Your task to perform on an android device: set the timer Image 0: 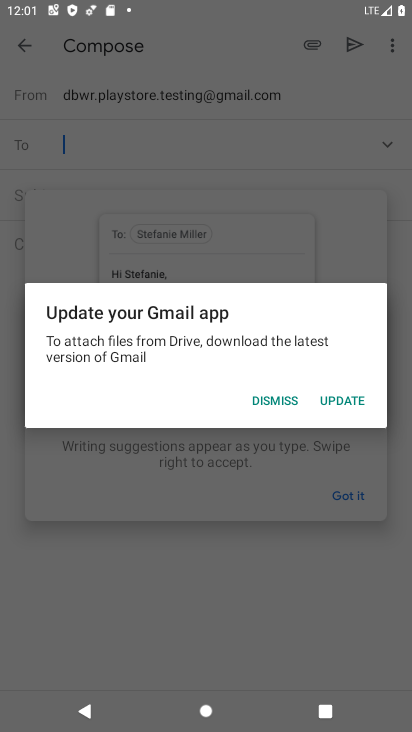
Step 0: press home button
Your task to perform on an android device: set the timer Image 1: 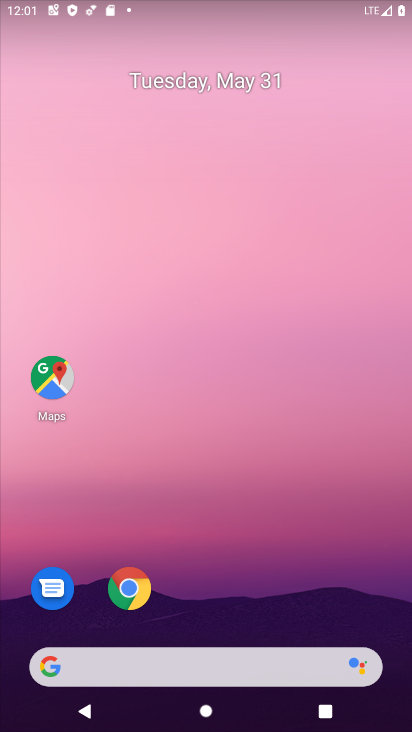
Step 1: drag from (227, 615) to (251, 131)
Your task to perform on an android device: set the timer Image 2: 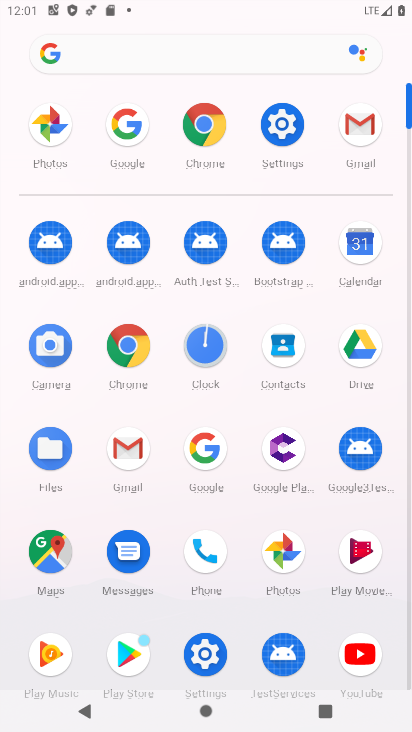
Step 2: click (201, 333)
Your task to perform on an android device: set the timer Image 3: 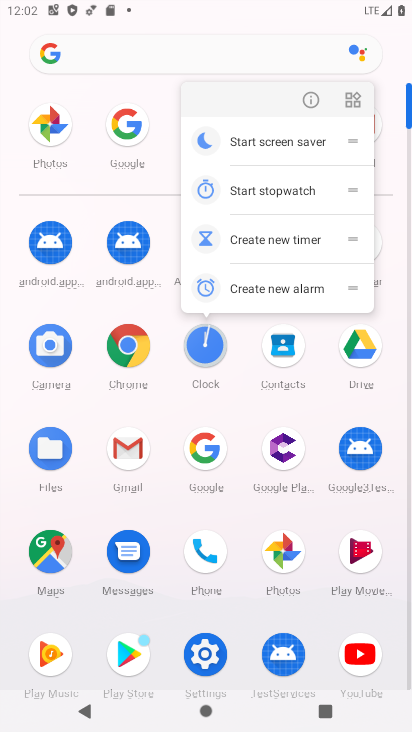
Step 3: click (209, 358)
Your task to perform on an android device: set the timer Image 4: 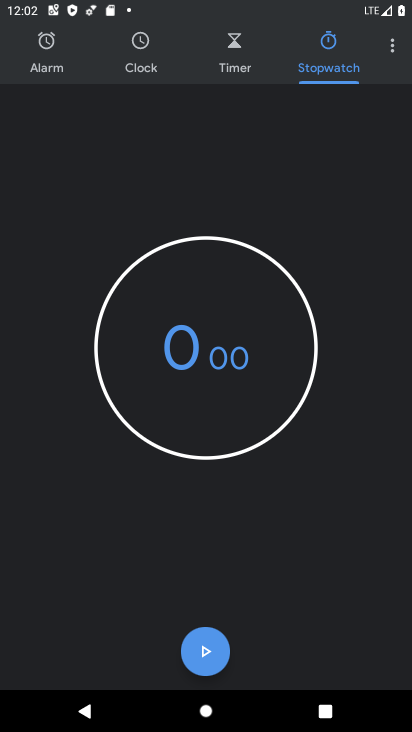
Step 4: click (238, 63)
Your task to perform on an android device: set the timer Image 5: 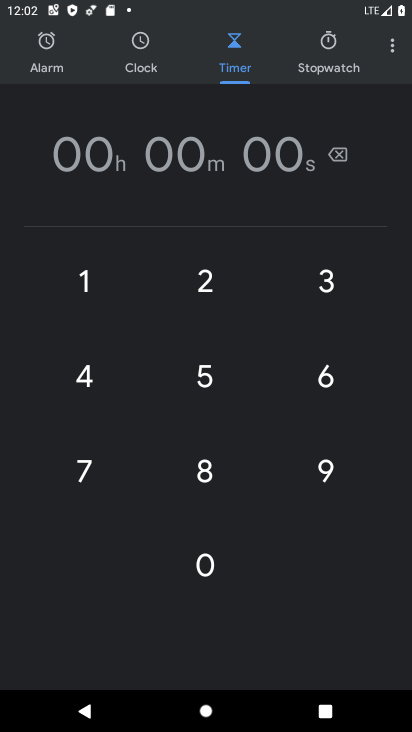
Step 5: click (207, 282)
Your task to perform on an android device: set the timer Image 6: 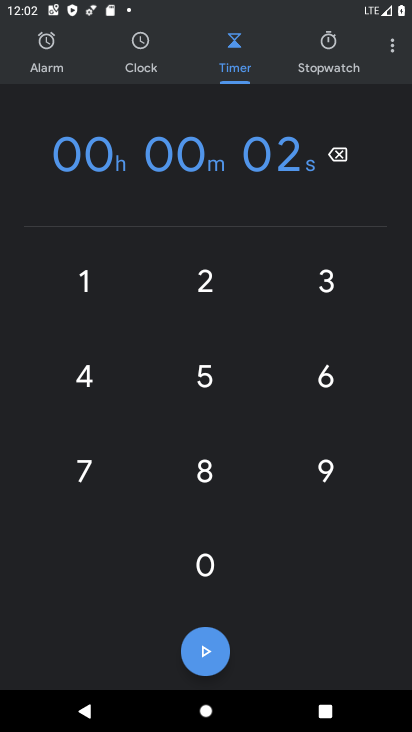
Step 6: click (211, 577)
Your task to perform on an android device: set the timer Image 7: 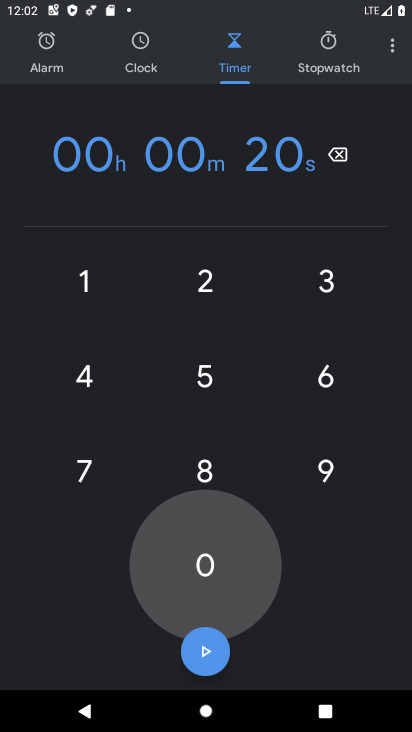
Step 7: click (211, 577)
Your task to perform on an android device: set the timer Image 8: 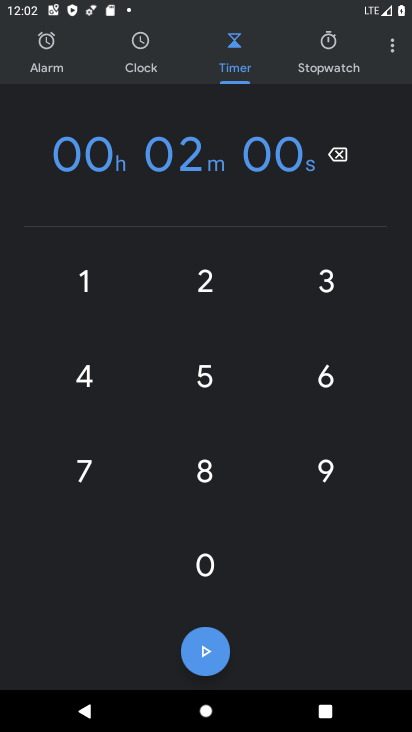
Step 8: click (195, 571)
Your task to perform on an android device: set the timer Image 9: 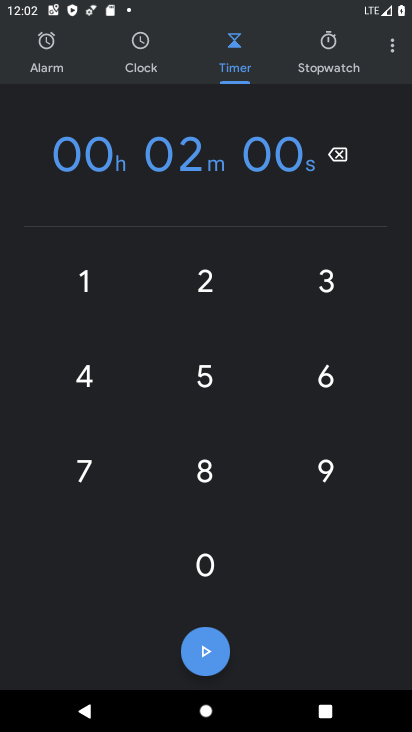
Step 9: click (209, 652)
Your task to perform on an android device: set the timer Image 10: 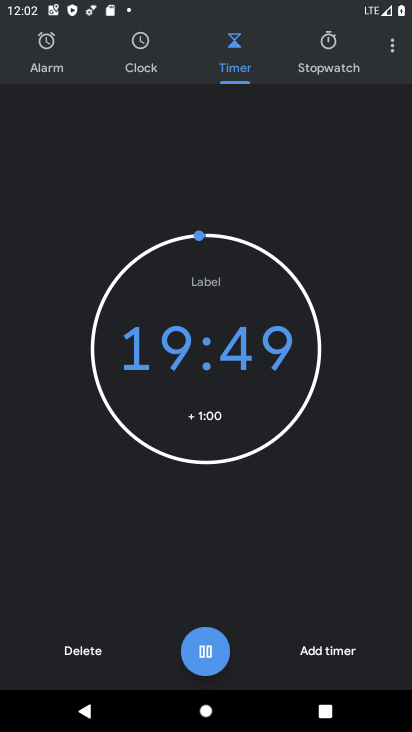
Step 10: task complete